Your task to perform on an android device: Add "usb-c to usb-b" to the cart on target Image 0: 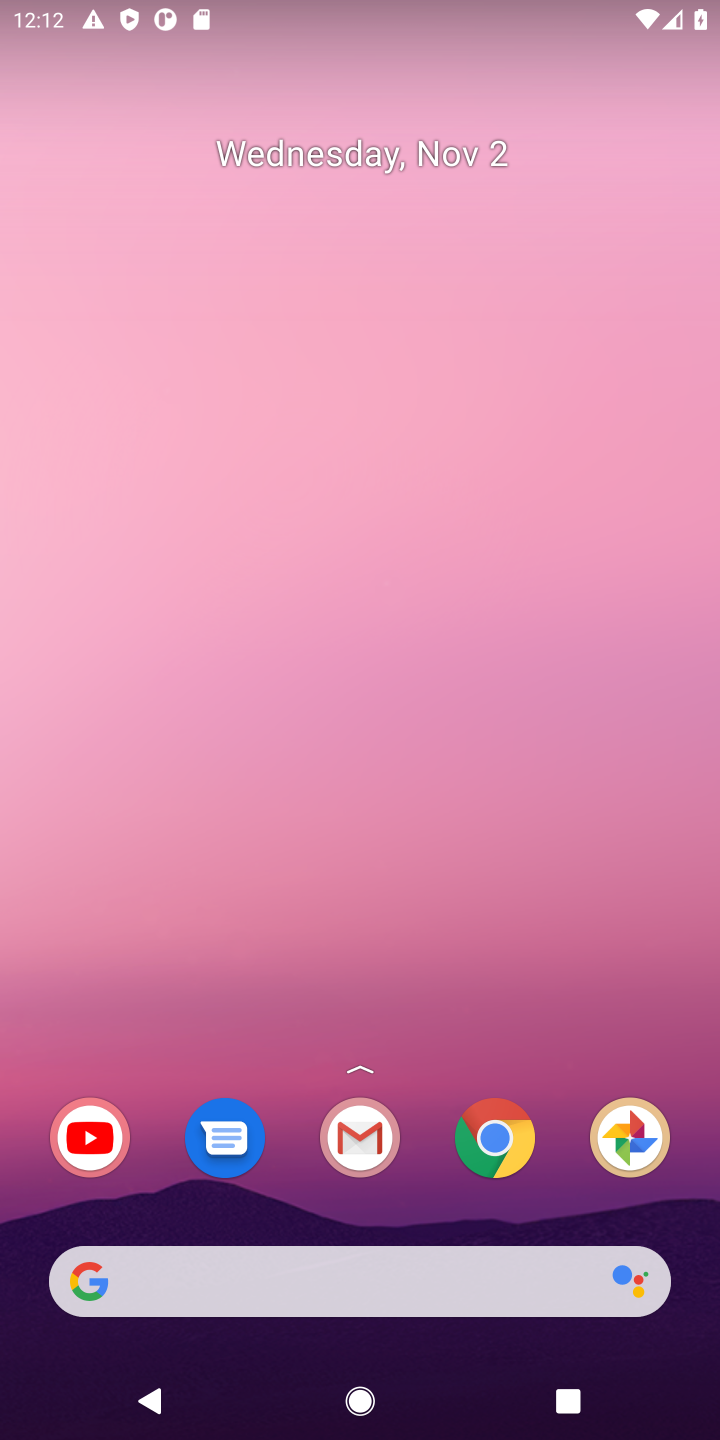
Step 0: press home button
Your task to perform on an android device: Add "usb-c to usb-b" to the cart on target Image 1: 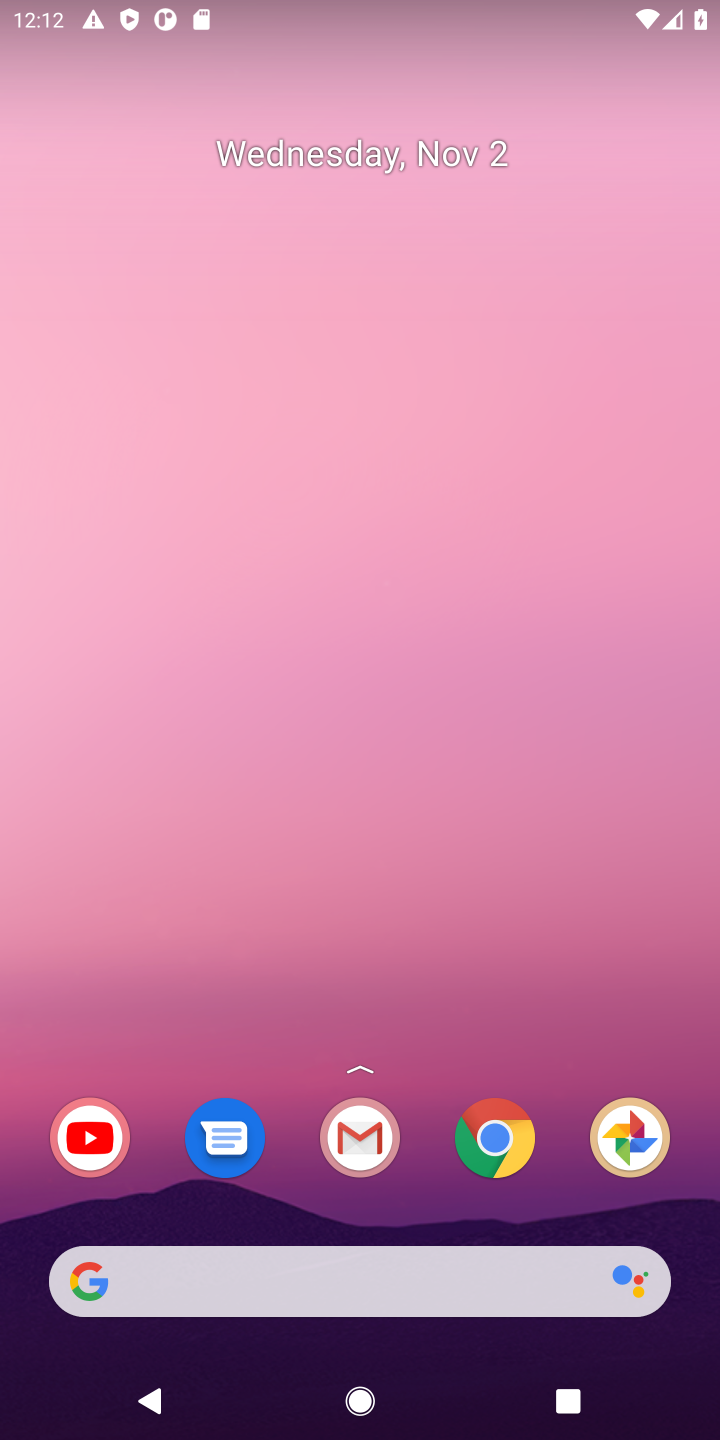
Step 1: click (147, 1290)
Your task to perform on an android device: Add "usb-c to usb-b" to the cart on target Image 2: 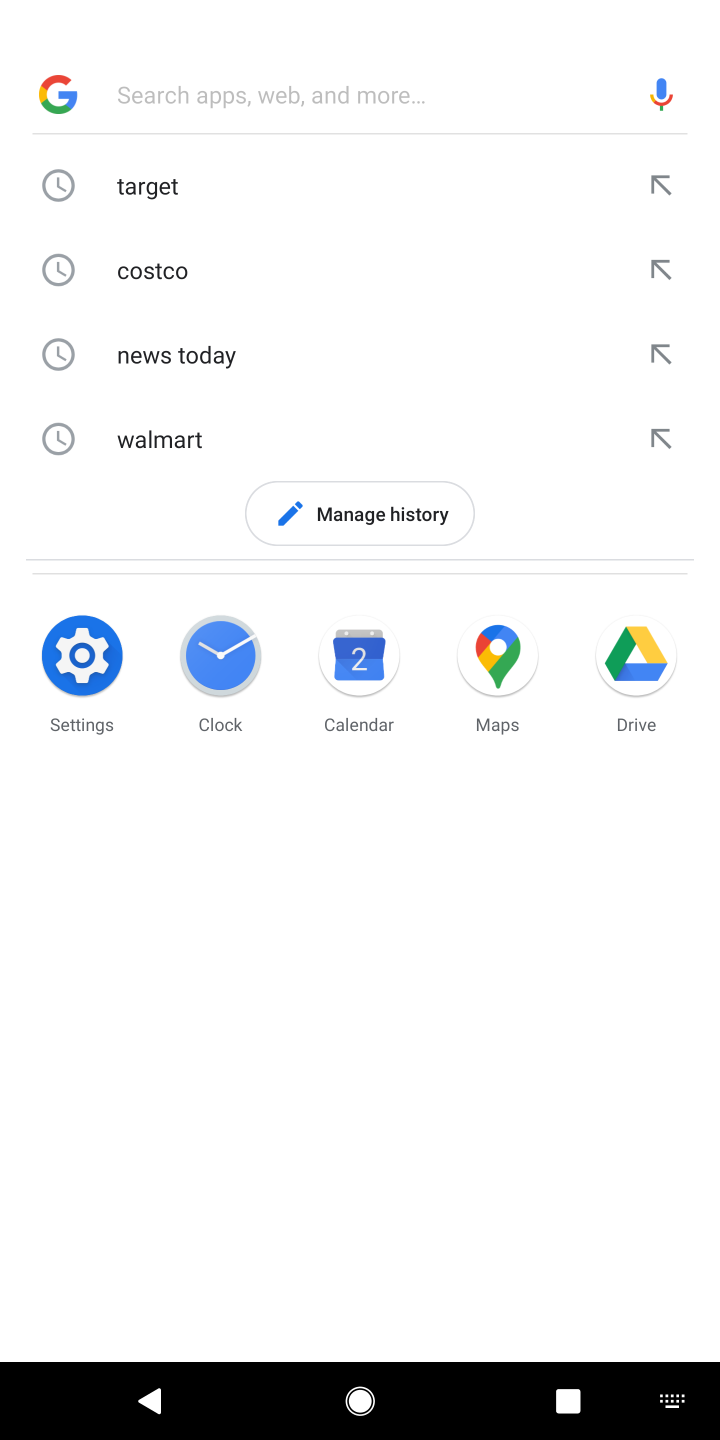
Step 2: type "target"
Your task to perform on an android device: Add "usb-c to usb-b" to the cart on target Image 3: 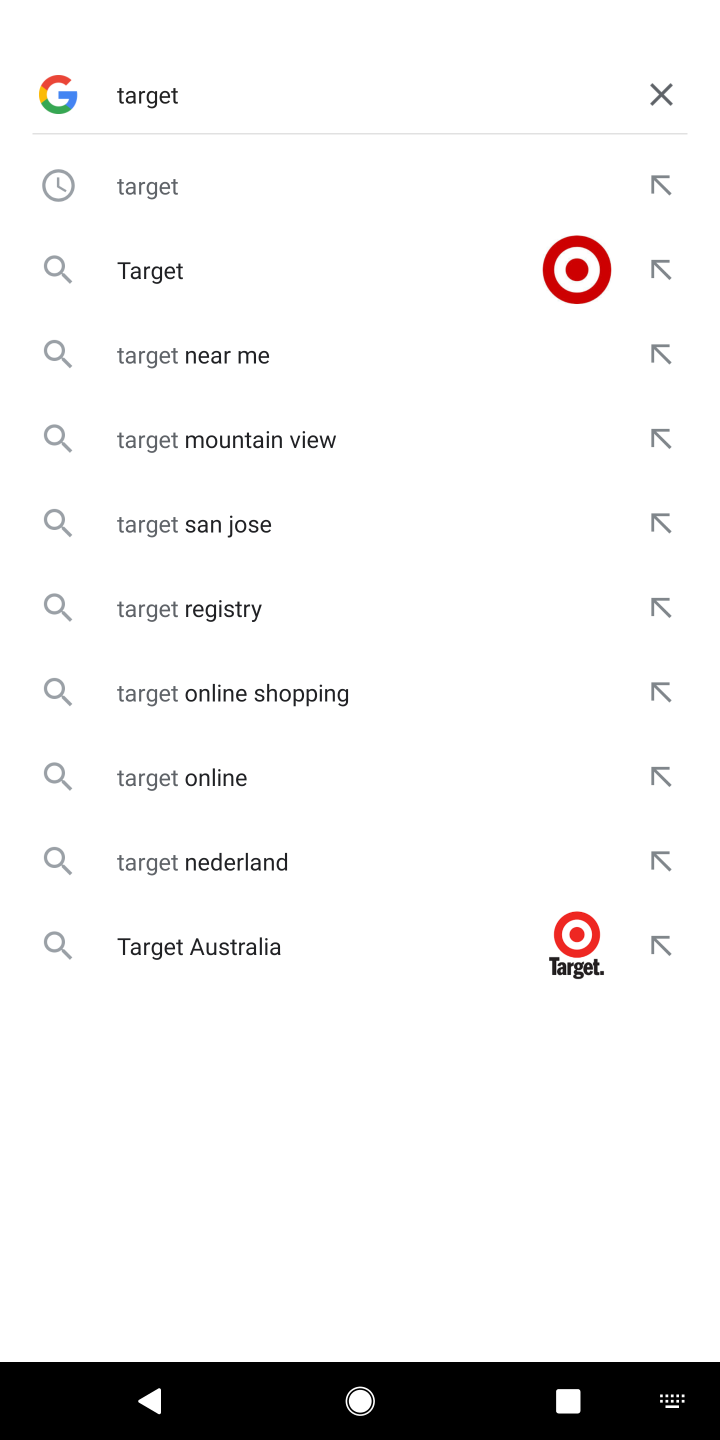
Step 3: press enter
Your task to perform on an android device: Add "usb-c to usb-b" to the cart on target Image 4: 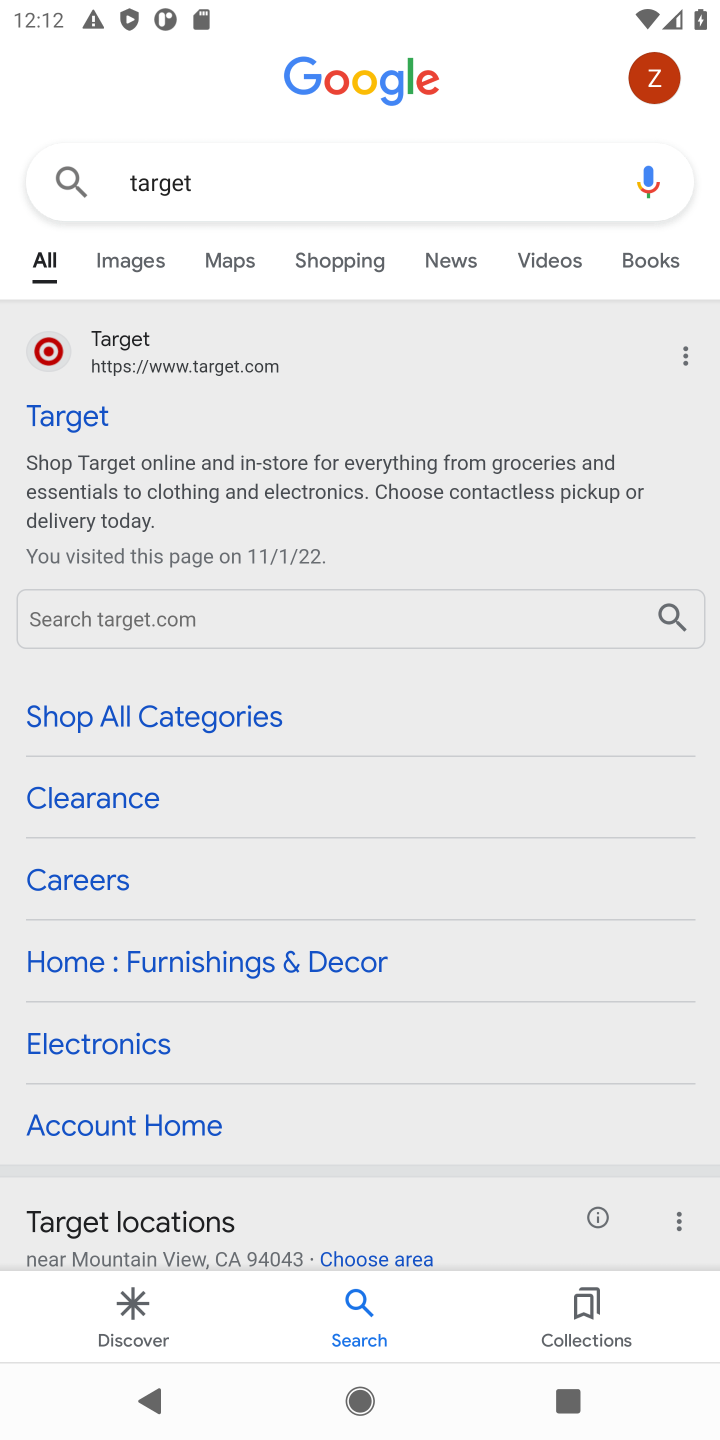
Step 4: click (77, 421)
Your task to perform on an android device: Add "usb-c to usb-b" to the cart on target Image 5: 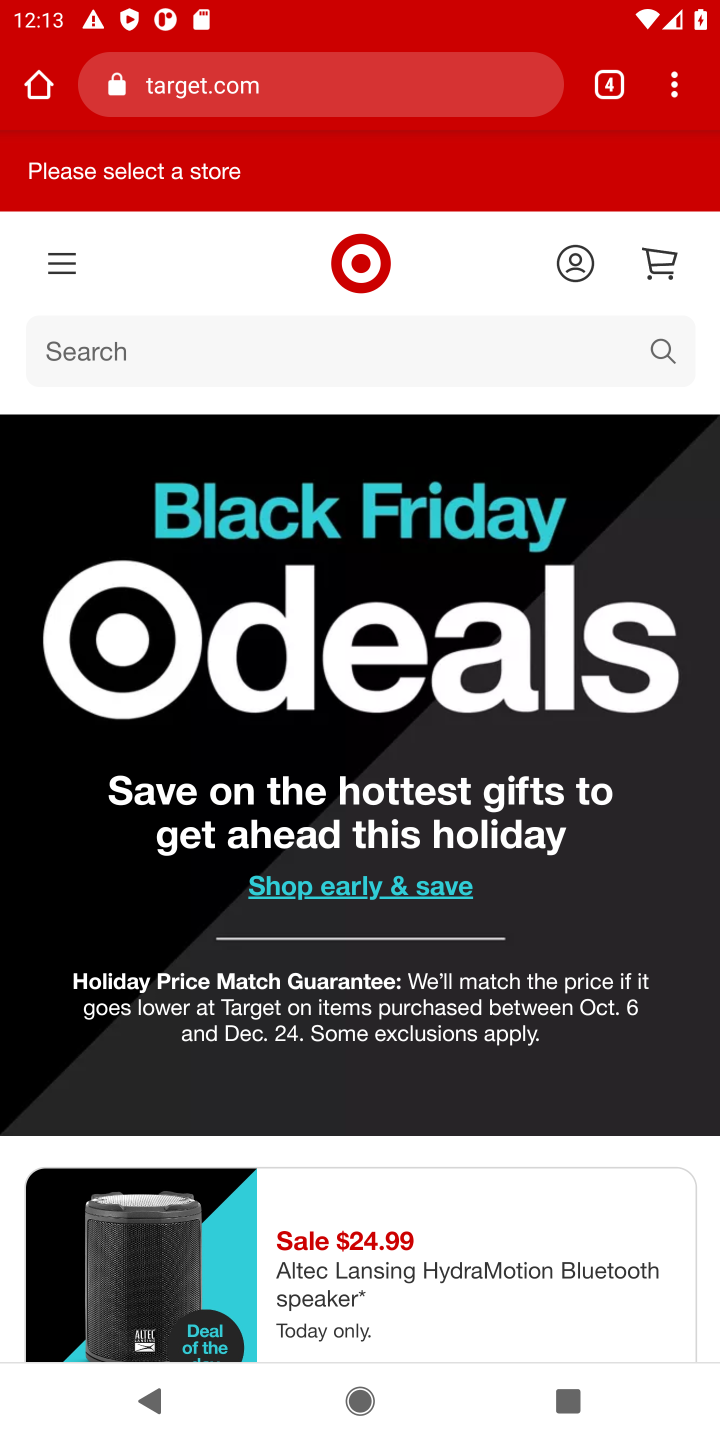
Step 5: click (111, 358)
Your task to perform on an android device: Add "usb-c to usb-b" to the cart on target Image 6: 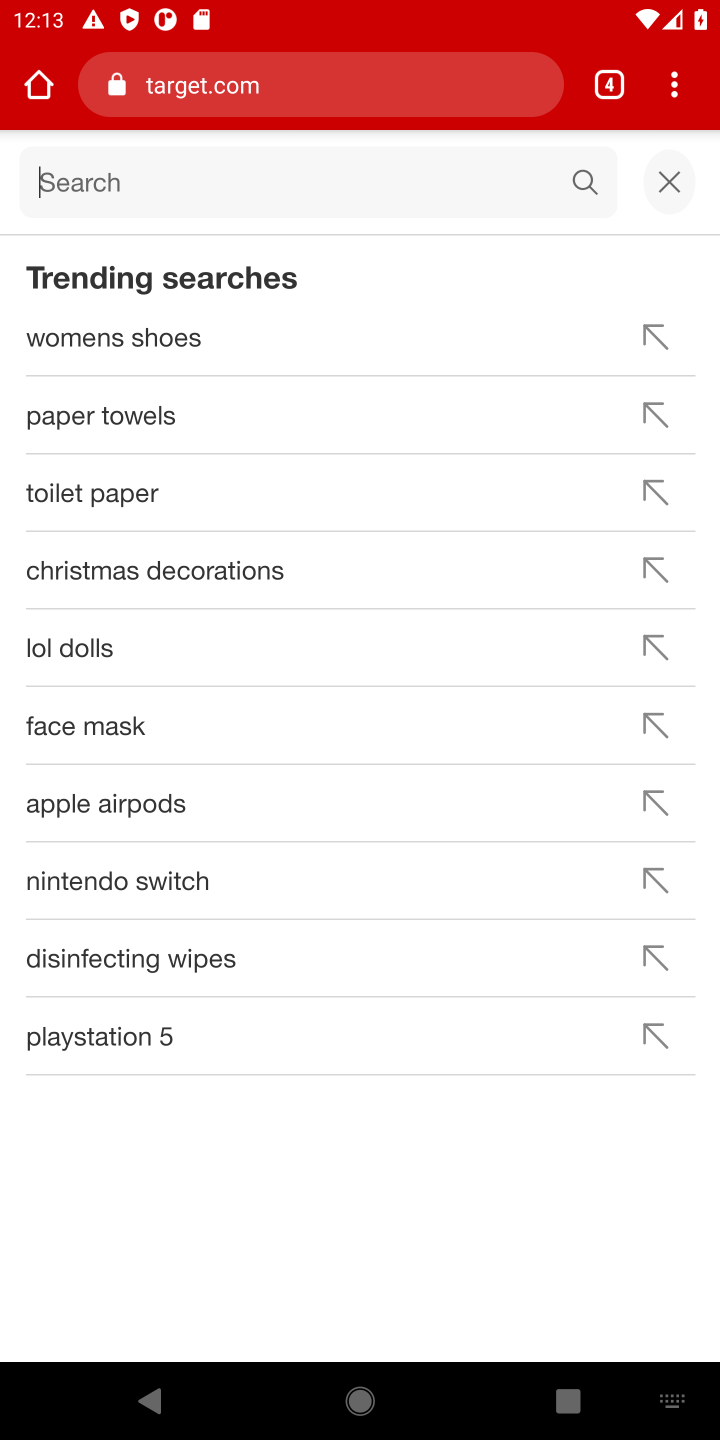
Step 6: type "usb-c to usb-b"
Your task to perform on an android device: Add "usb-c to usb-b" to the cart on target Image 7: 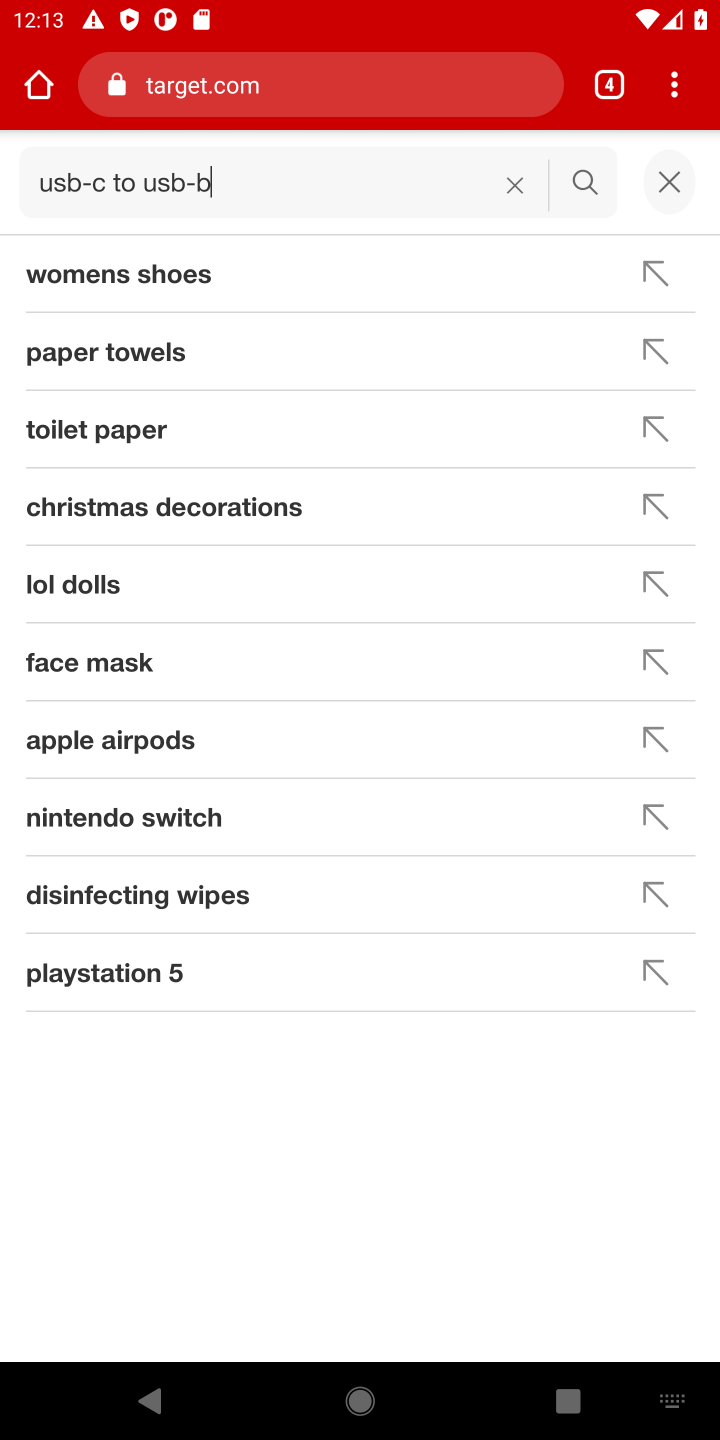
Step 7: press enter
Your task to perform on an android device: Add "usb-c to usb-b" to the cart on target Image 8: 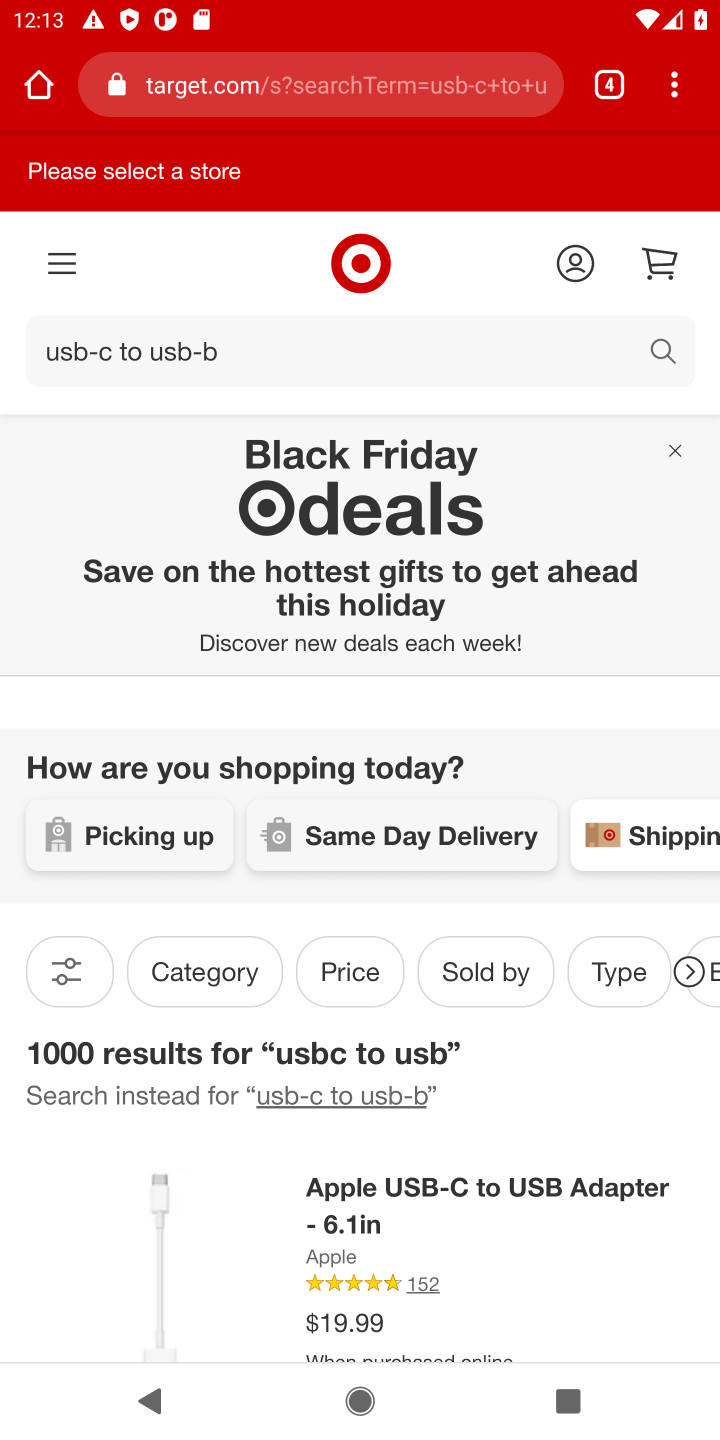
Step 8: task complete